Your task to perform on an android device: Open network settings Image 0: 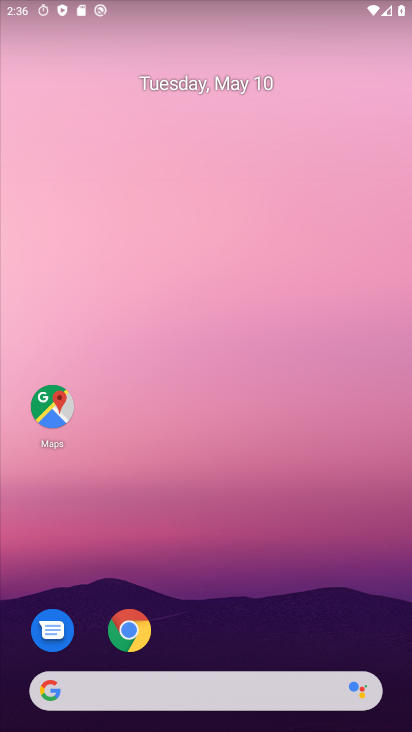
Step 0: drag from (221, 629) to (322, 34)
Your task to perform on an android device: Open network settings Image 1: 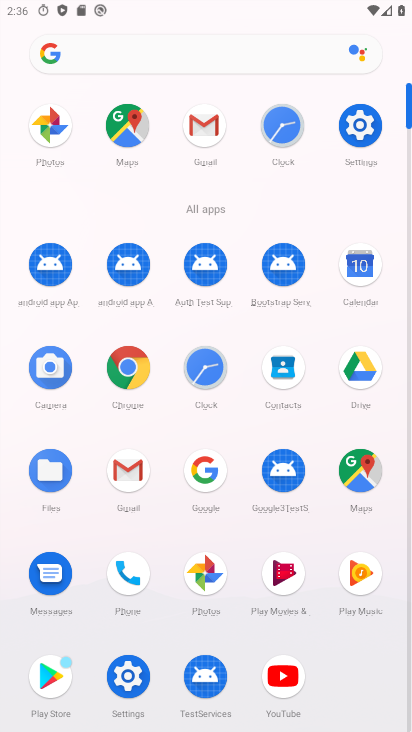
Step 1: click (360, 133)
Your task to perform on an android device: Open network settings Image 2: 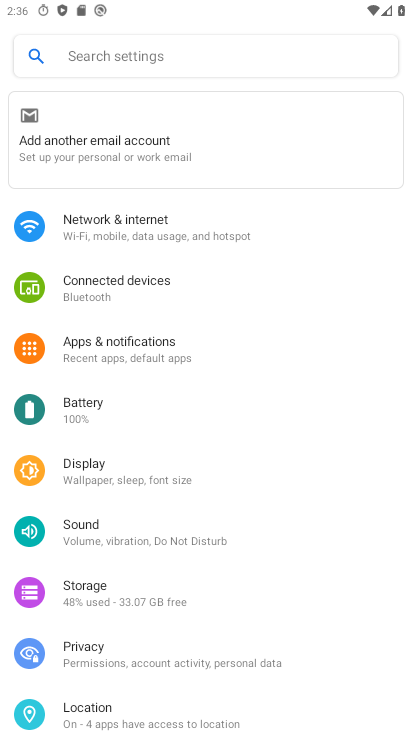
Step 2: click (86, 212)
Your task to perform on an android device: Open network settings Image 3: 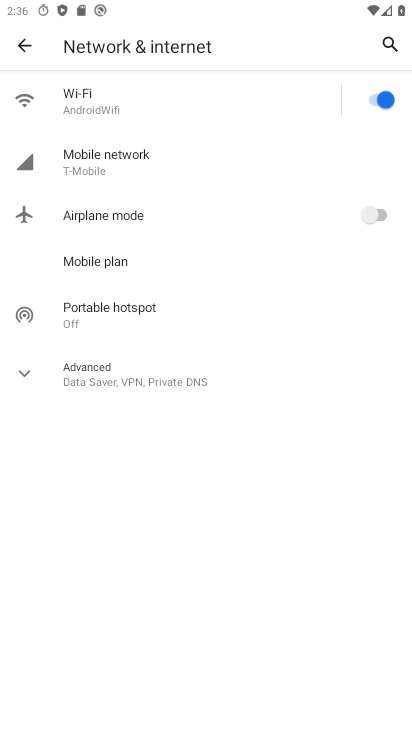
Step 3: task complete